Your task to perform on an android device: open device folders in google photos Image 0: 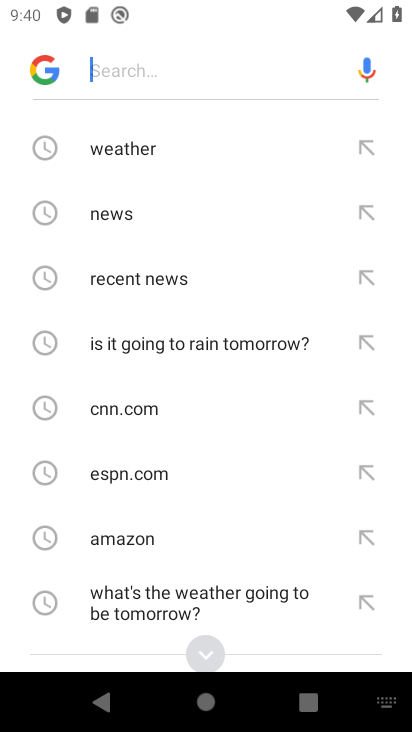
Step 0: press home button
Your task to perform on an android device: open device folders in google photos Image 1: 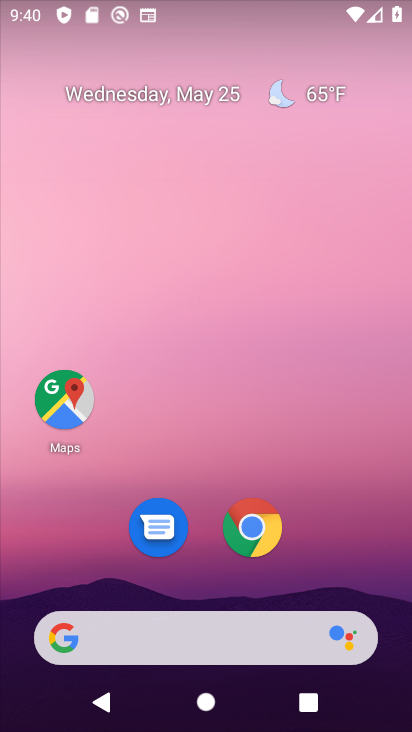
Step 1: drag from (318, 569) to (275, 248)
Your task to perform on an android device: open device folders in google photos Image 2: 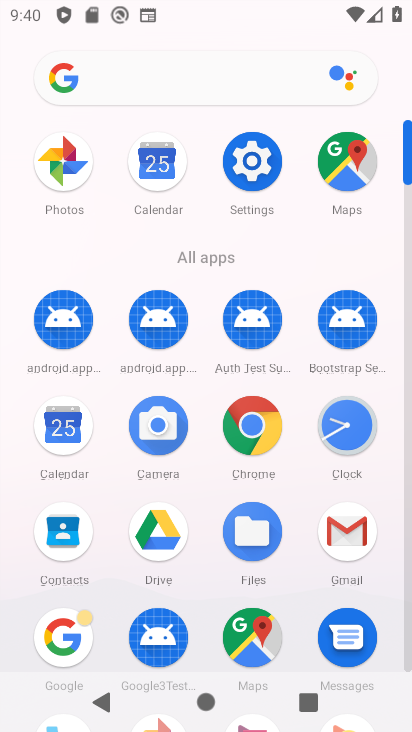
Step 2: click (64, 159)
Your task to perform on an android device: open device folders in google photos Image 3: 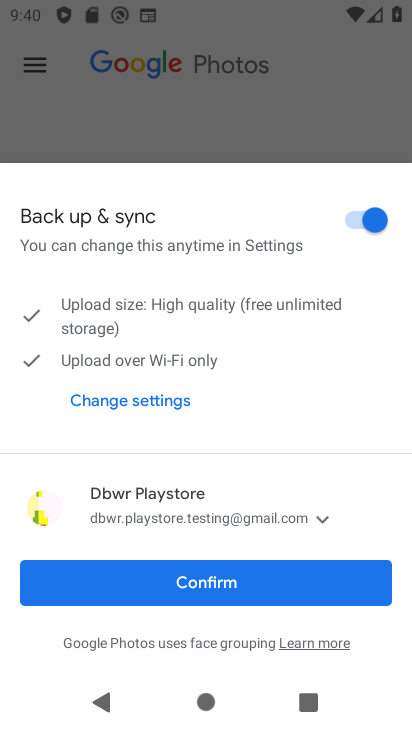
Step 3: click (213, 584)
Your task to perform on an android device: open device folders in google photos Image 4: 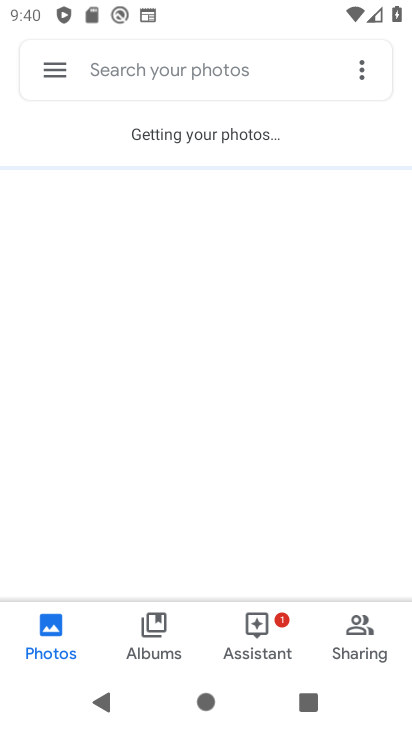
Step 4: click (54, 70)
Your task to perform on an android device: open device folders in google photos Image 5: 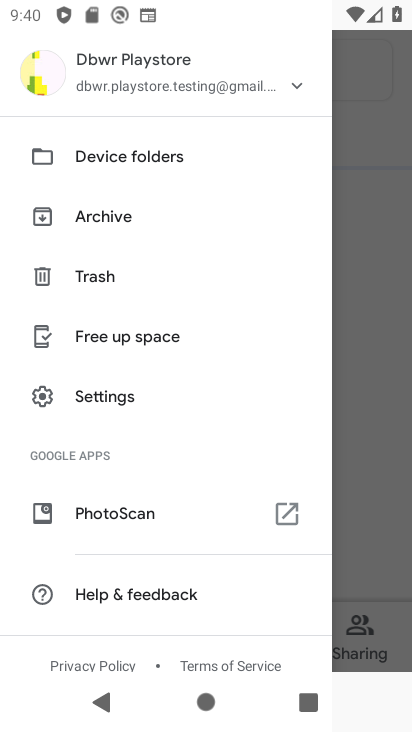
Step 5: click (140, 169)
Your task to perform on an android device: open device folders in google photos Image 6: 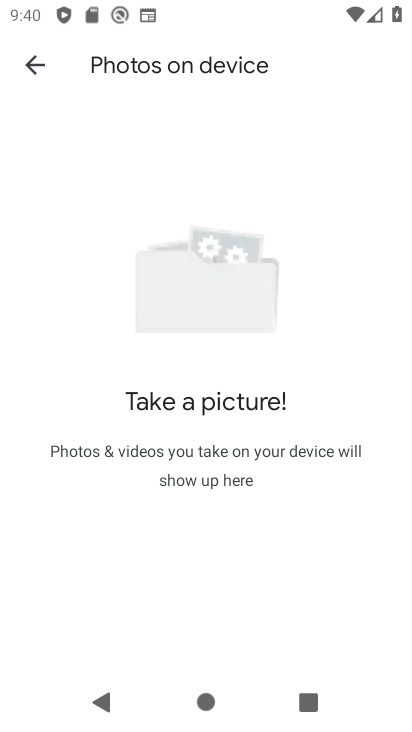
Step 6: task complete